Your task to perform on an android device: Find coffee shops on Maps Image 0: 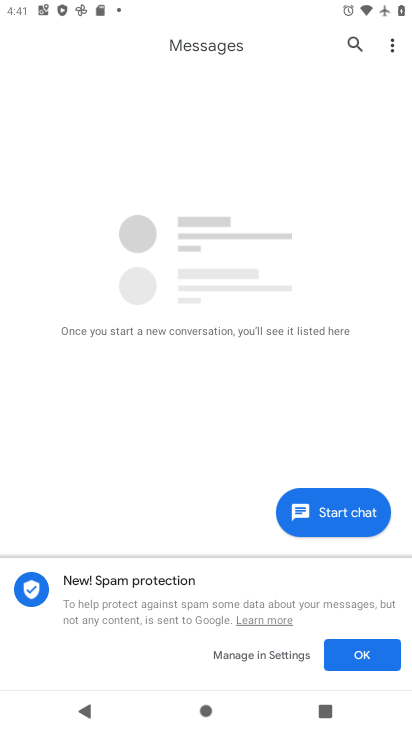
Step 0: press home button
Your task to perform on an android device: Find coffee shops on Maps Image 1: 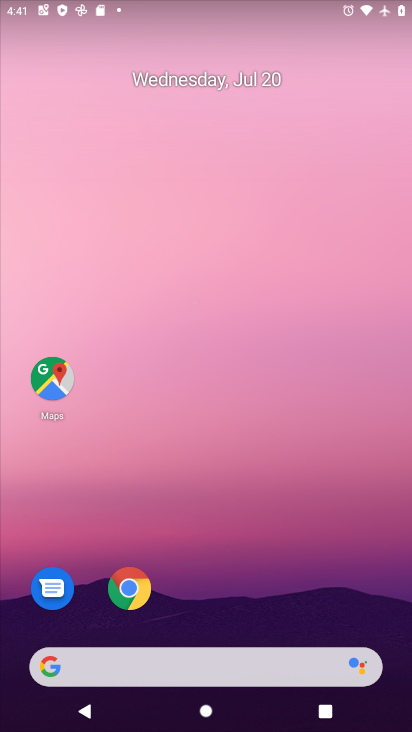
Step 1: drag from (313, 535) to (285, 54)
Your task to perform on an android device: Find coffee shops on Maps Image 2: 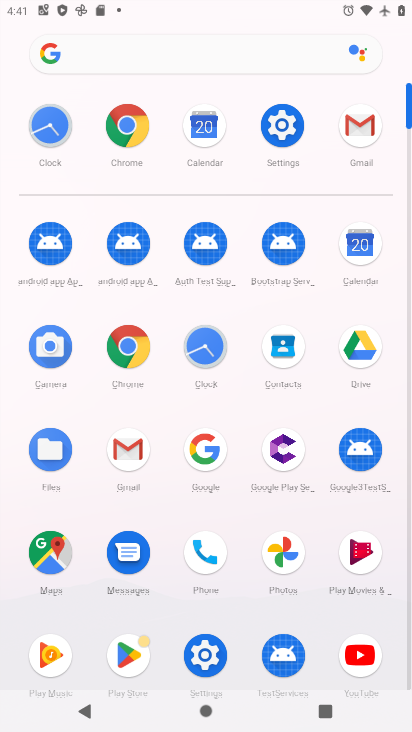
Step 2: click (43, 540)
Your task to perform on an android device: Find coffee shops on Maps Image 3: 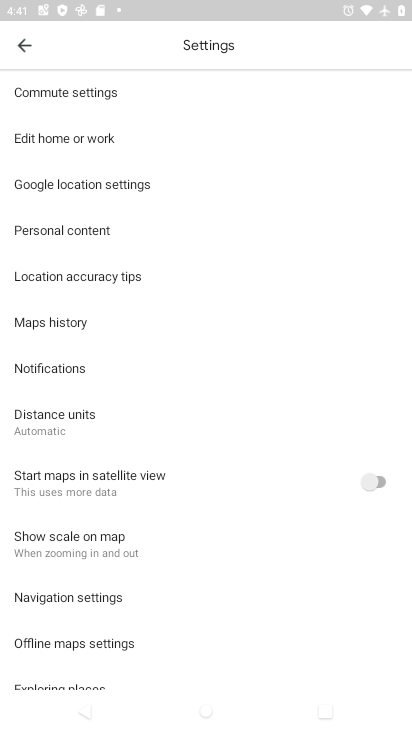
Step 3: click (26, 44)
Your task to perform on an android device: Find coffee shops on Maps Image 4: 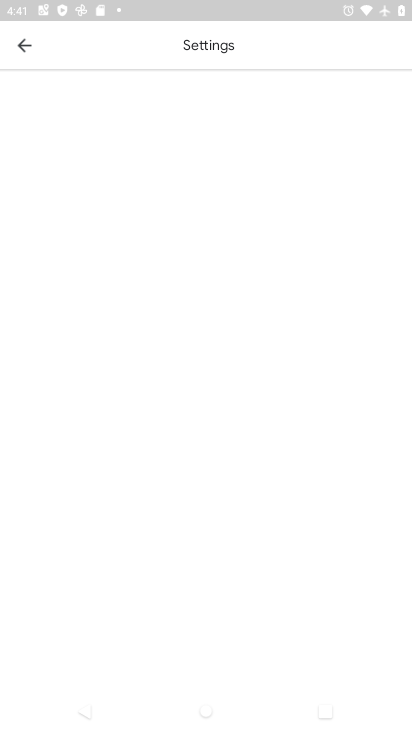
Step 4: click (24, 51)
Your task to perform on an android device: Find coffee shops on Maps Image 5: 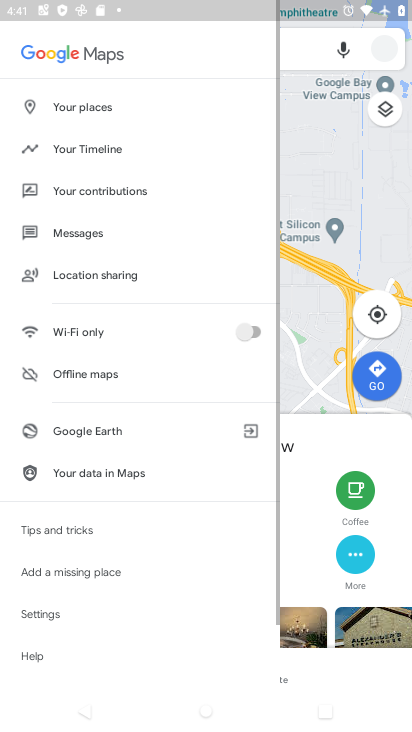
Step 5: click (90, 41)
Your task to perform on an android device: Find coffee shops on Maps Image 6: 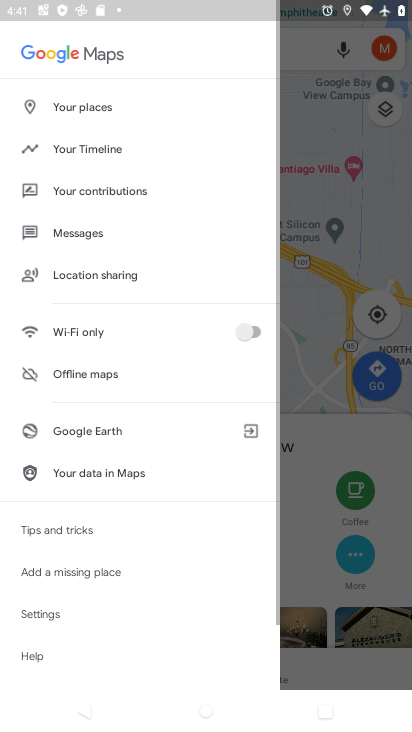
Step 6: click (306, 67)
Your task to perform on an android device: Find coffee shops on Maps Image 7: 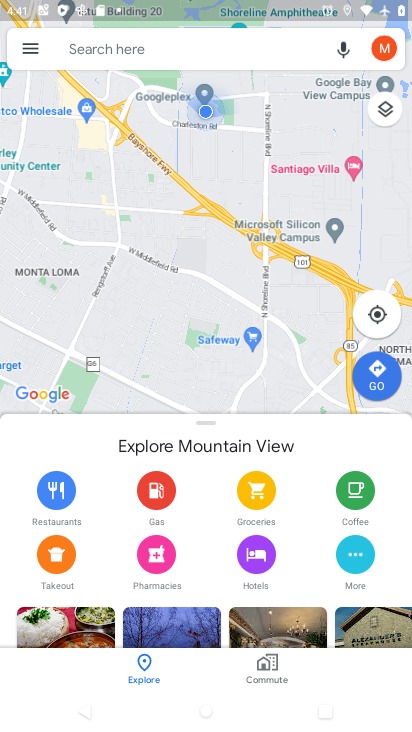
Step 7: click (231, 56)
Your task to perform on an android device: Find coffee shops on Maps Image 8: 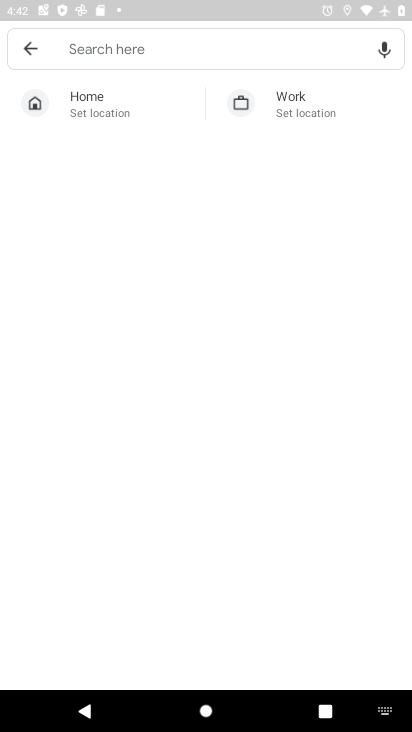
Step 8: type "coffee shops"
Your task to perform on an android device: Find coffee shops on Maps Image 9: 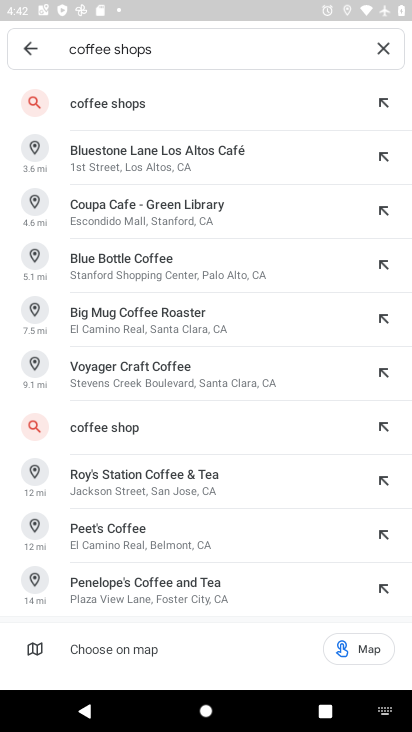
Step 9: click (151, 106)
Your task to perform on an android device: Find coffee shops on Maps Image 10: 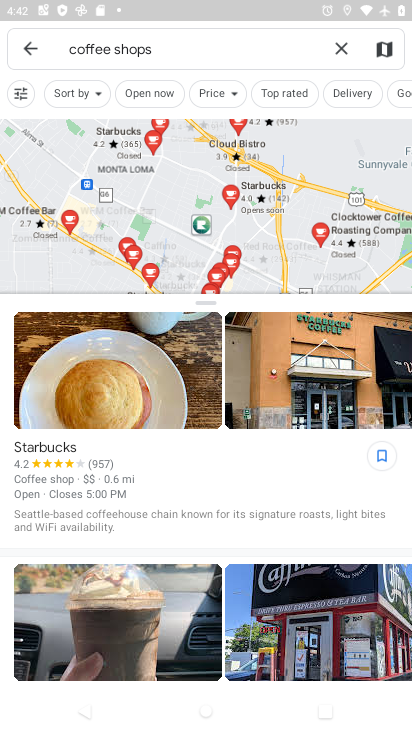
Step 10: task complete